Your task to perform on an android device: set an alarm Image 0: 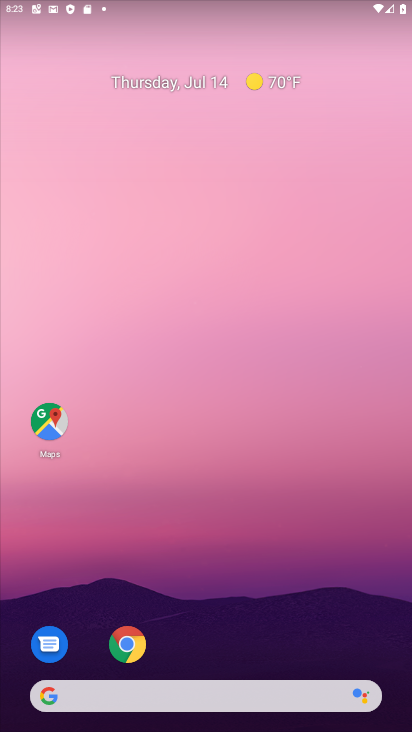
Step 0: drag from (175, 646) to (22, 0)
Your task to perform on an android device: set an alarm Image 1: 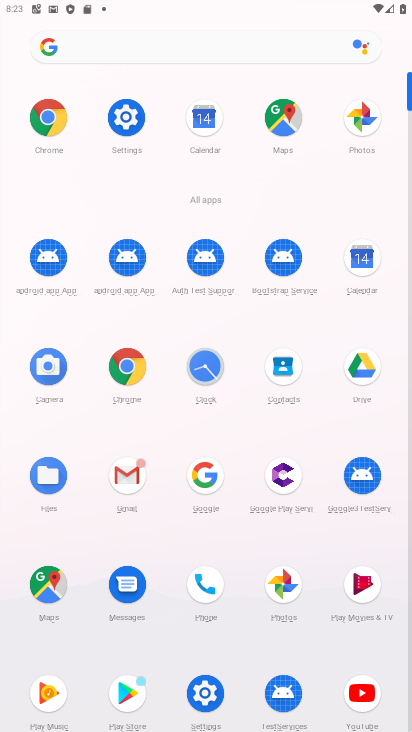
Step 1: click (206, 358)
Your task to perform on an android device: set an alarm Image 2: 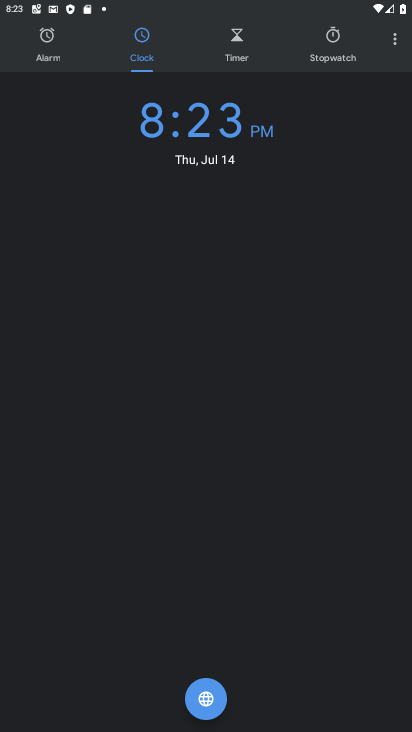
Step 2: click (387, 31)
Your task to perform on an android device: set an alarm Image 3: 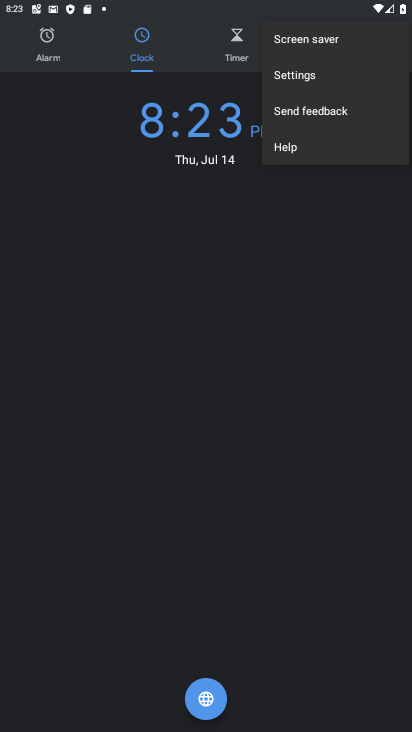
Step 3: click (318, 68)
Your task to perform on an android device: set an alarm Image 4: 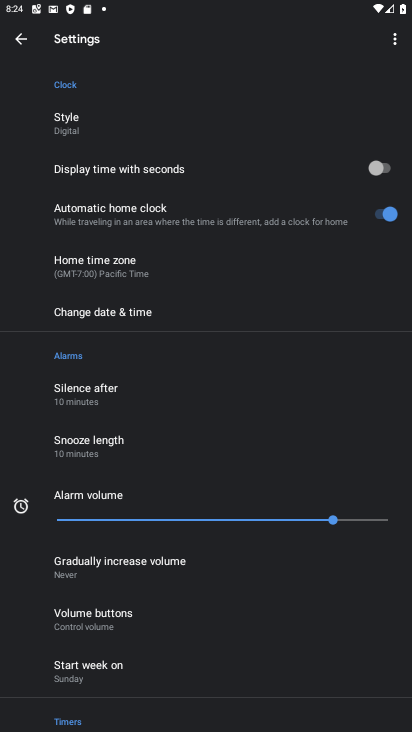
Step 4: drag from (205, 570) to (237, 364)
Your task to perform on an android device: set an alarm Image 5: 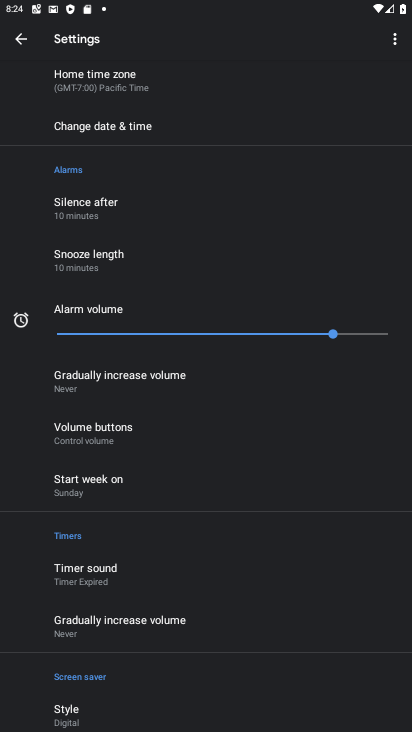
Step 5: click (15, 25)
Your task to perform on an android device: set an alarm Image 6: 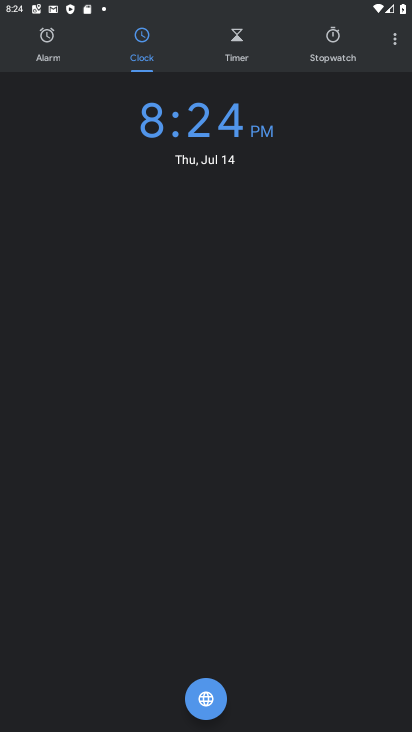
Step 6: click (40, 48)
Your task to perform on an android device: set an alarm Image 7: 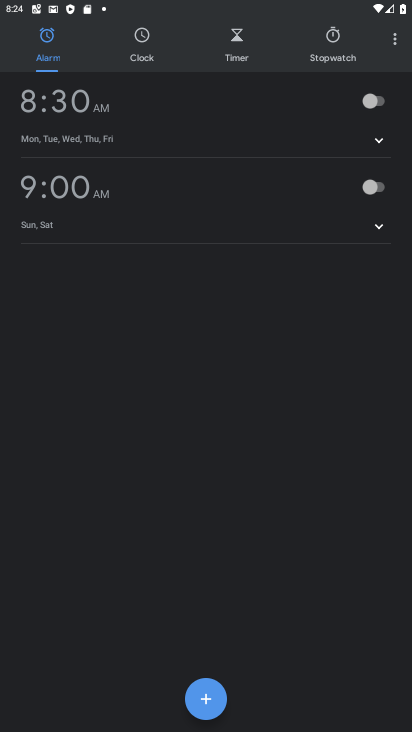
Step 7: click (375, 93)
Your task to perform on an android device: set an alarm Image 8: 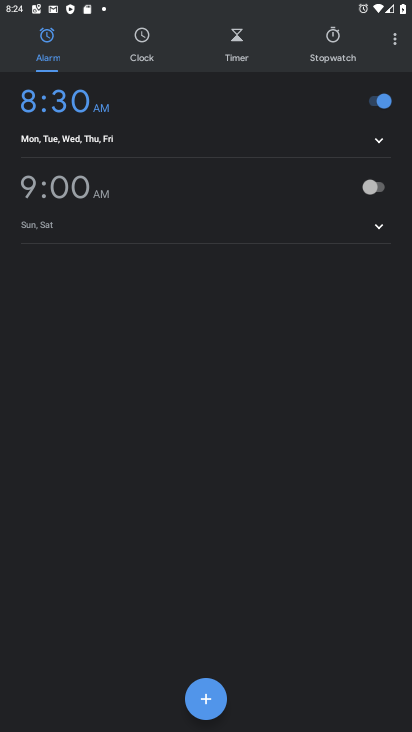
Step 8: task complete